Your task to perform on an android device: snooze an email in the gmail app Image 0: 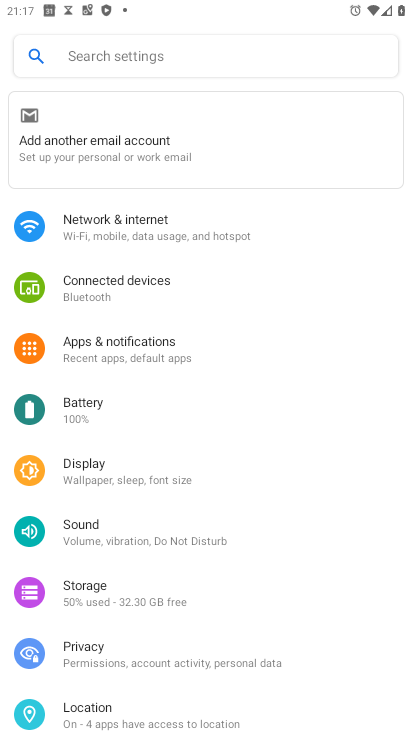
Step 0: press home button
Your task to perform on an android device: snooze an email in the gmail app Image 1: 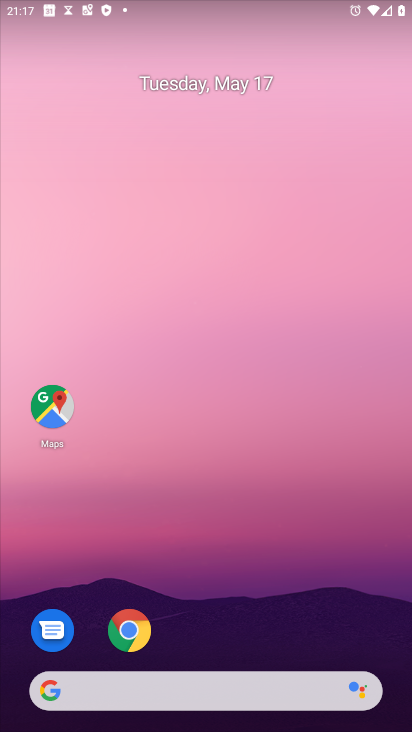
Step 1: drag from (223, 621) to (253, 179)
Your task to perform on an android device: snooze an email in the gmail app Image 2: 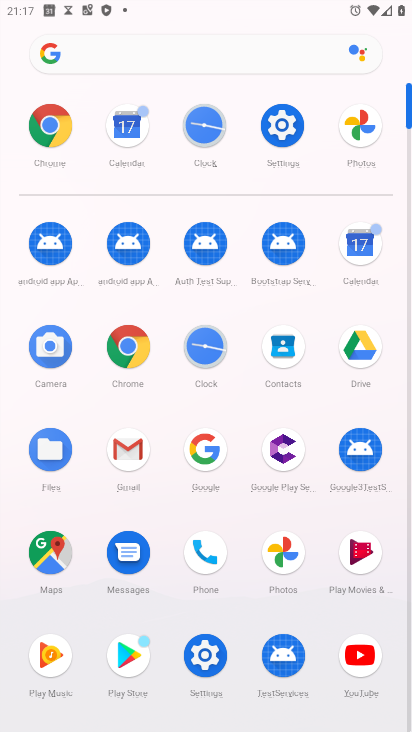
Step 2: click (142, 457)
Your task to perform on an android device: snooze an email in the gmail app Image 3: 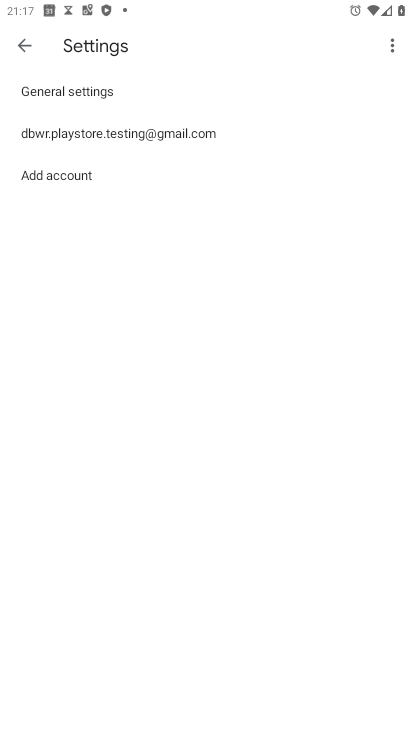
Step 3: click (20, 45)
Your task to perform on an android device: snooze an email in the gmail app Image 4: 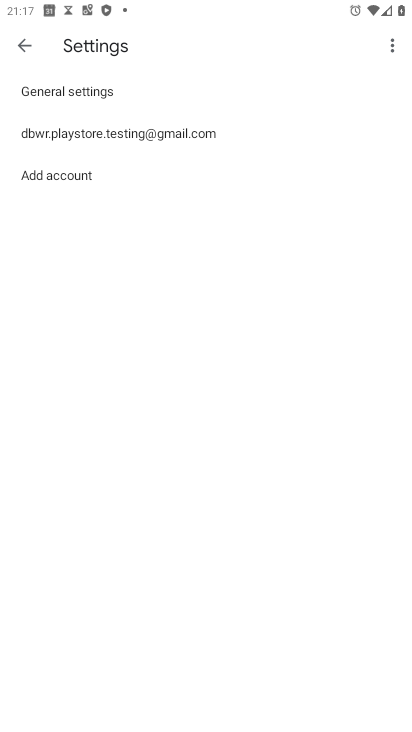
Step 4: press back button
Your task to perform on an android device: snooze an email in the gmail app Image 5: 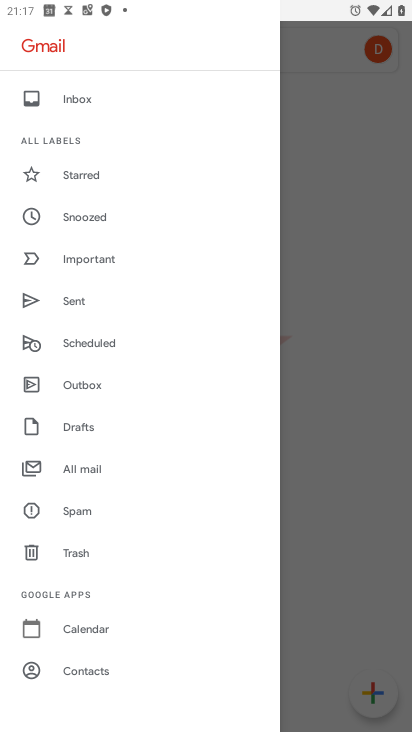
Step 5: drag from (136, 224) to (136, 441)
Your task to perform on an android device: snooze an email in the gmail app Image 6: 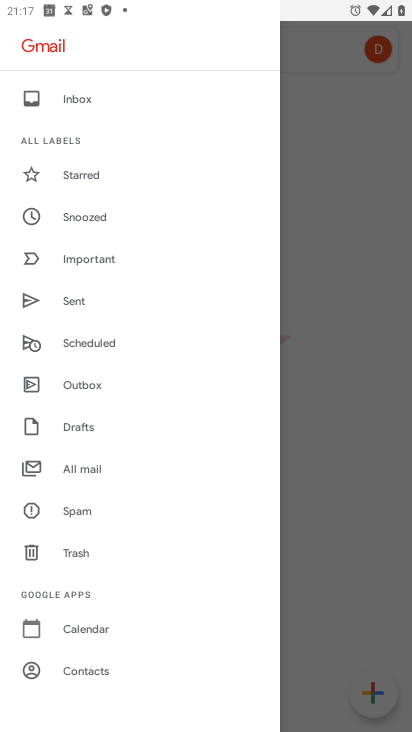
Step 6: click (38, 100)
Your task to perform on an android device: snooze an email in the gmail app Image 7: 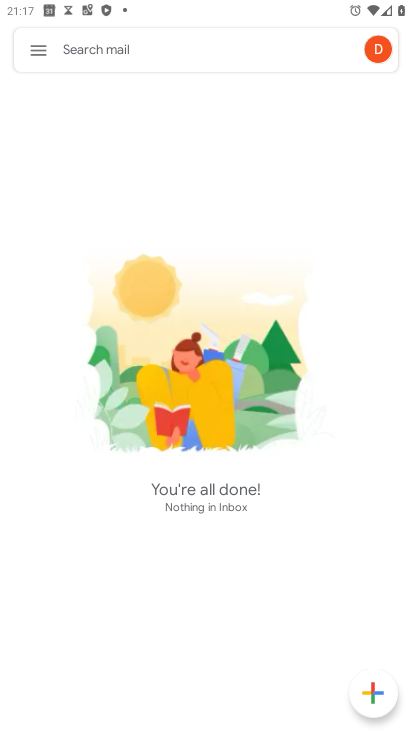
Step 7: click (34, 51)
Your task to perform on an android device: snooze an email in the gmail app Image 8: 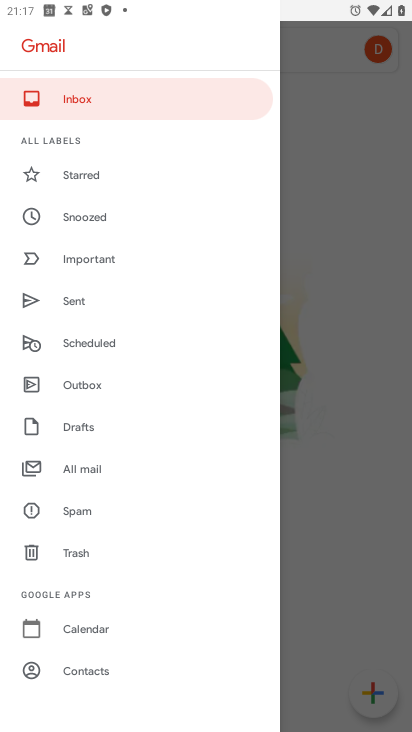
Step 8: click (74, 556)
Your task to perform on an android device: snooze an email in the gmail app Image 9: 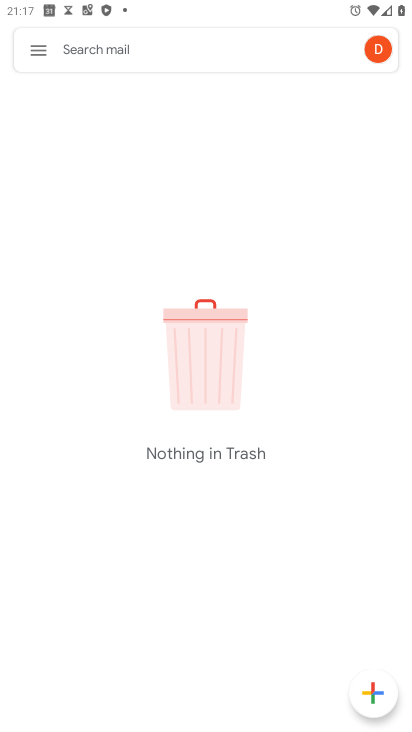
Step 9: click (39, 50)
Your task to perform on an android device: snooze an email in the gmail app Image 10: 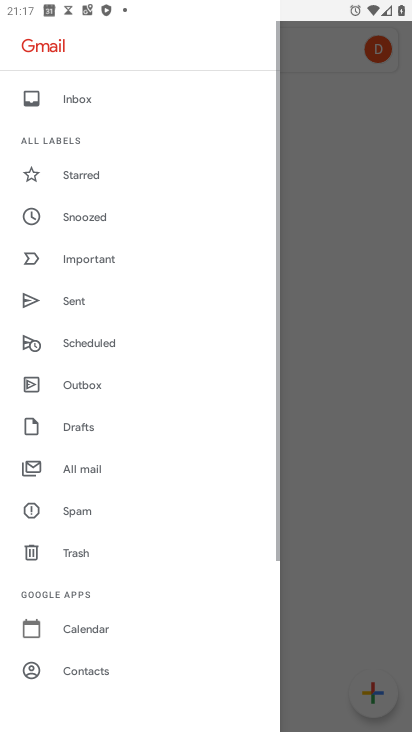
Step 10: click (91, 93)
Your task to perform on an android device: snooze an email in the gmail app Image 11: 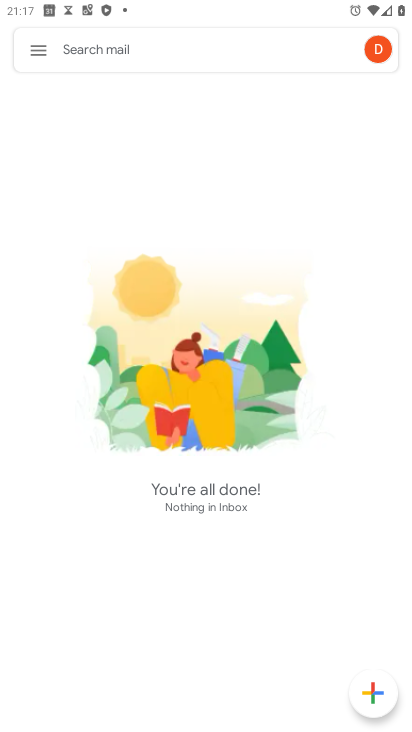
Step 11: task complete